Your task to perform on an android device: open the mobile data screen to see how much data has been used Image 0: 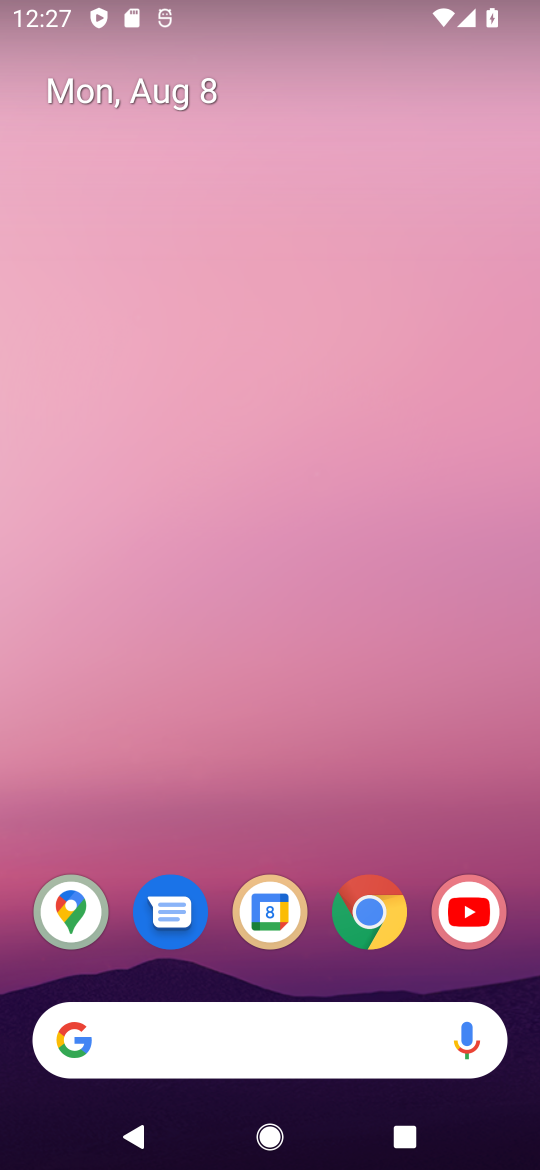
Step 0: drag from (268, 992) to (300, 103)
Your task to perform on an android device: open the mobile data screen to see how much data has been used Image 1: 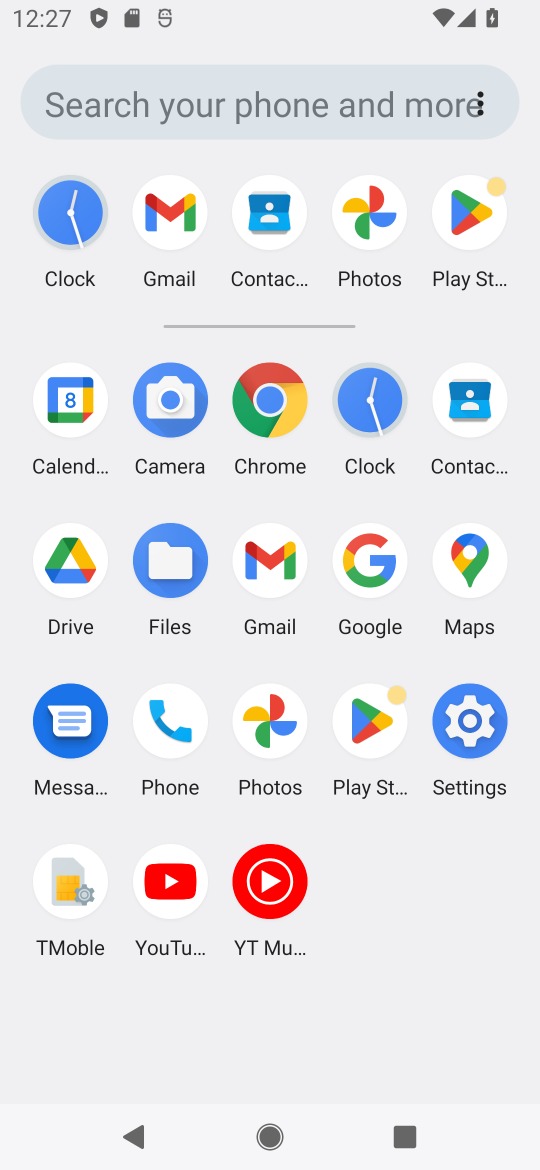
Step 1: click (470, 738)
Your task to perform on an android device: open the mobile data screen to see how much data has been used Image 2: 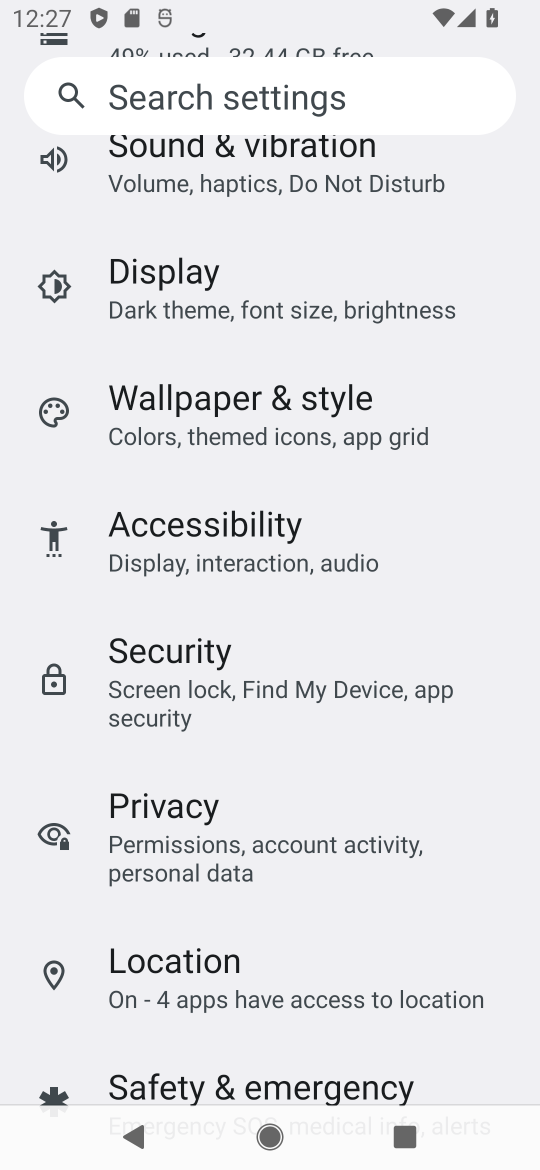
Step 2: drag from (276, 242) to (210, 1168)
Your task to perform on an android device: open the mobile data screen to see how much data has been used Image 3: 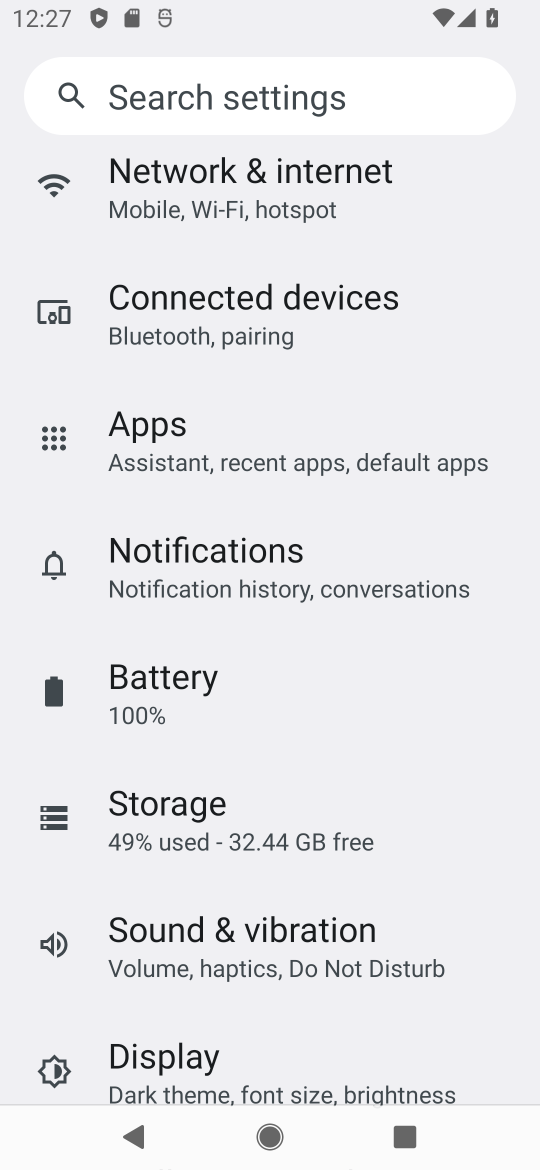
Step 3: click (244, 184)
Your task to perform on an android device: open the mobile data screen to see how much data has been used Image 4: 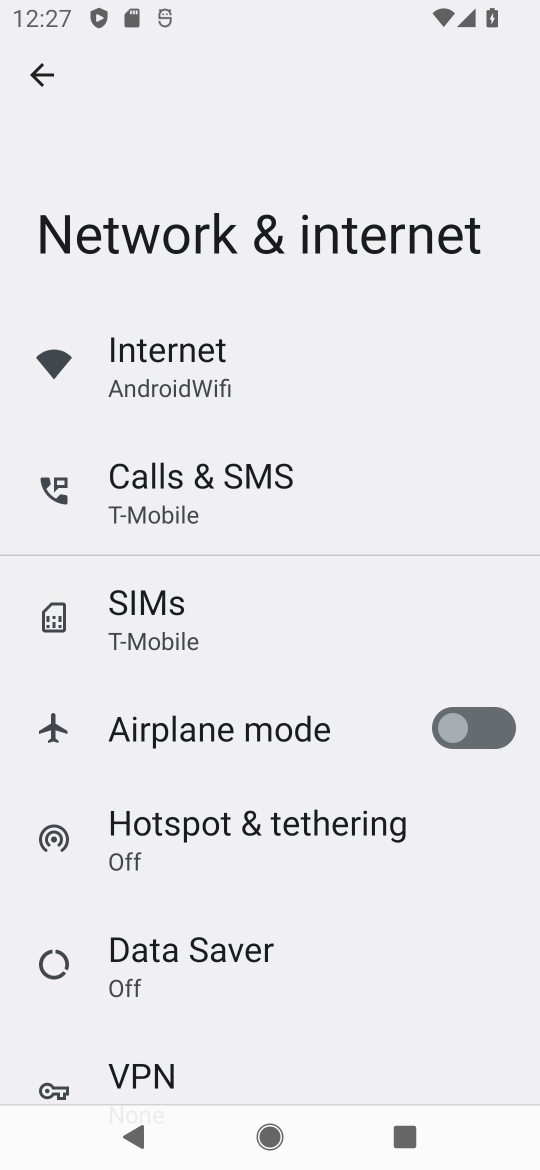
Step 4: click (207, 376)
Your task to perform on an android device: open the mobile data screen to see how much data has been used Image 5: 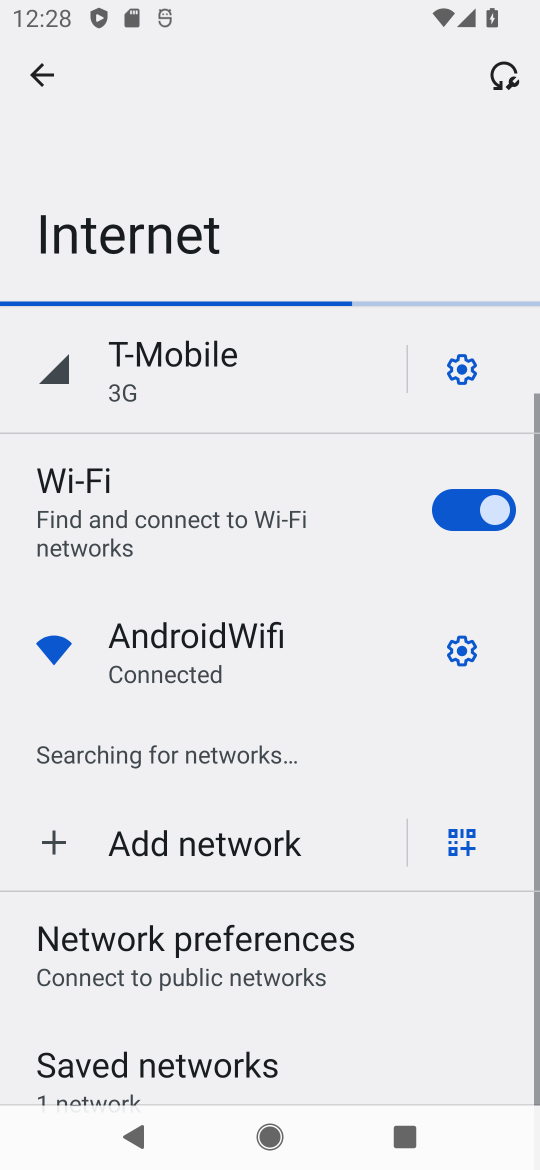
Step 5: drag from (181, 1056) to (360, 237)
Your task to perform on an android device: open the mobile data screen to see how much data has been used Image 6: 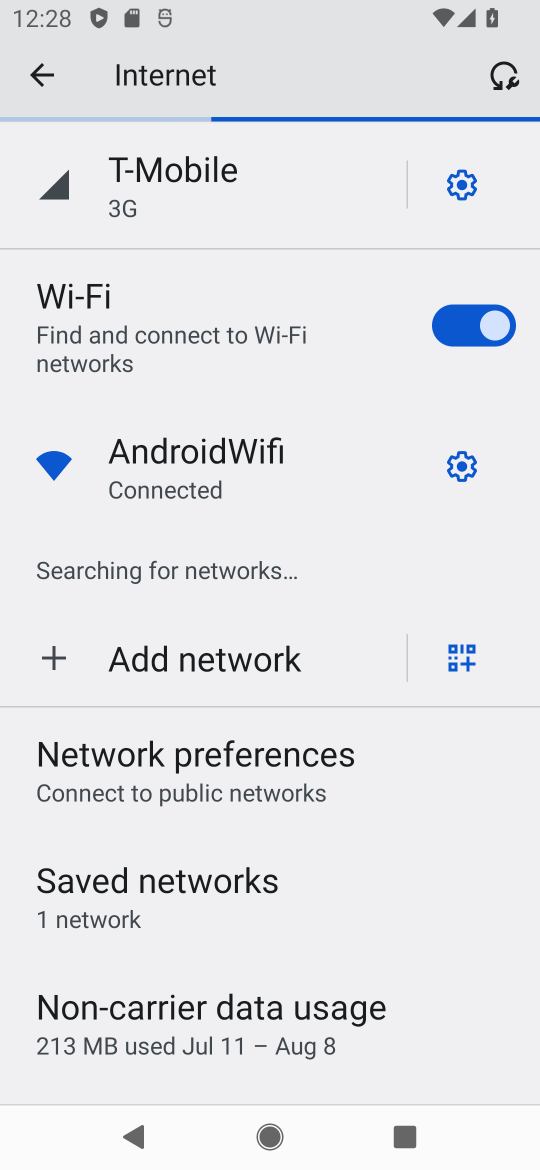
Step 6: click (323, 1002)
Your task to perform on an android device: open the mobile data screen to see how much data has been used Image 7: 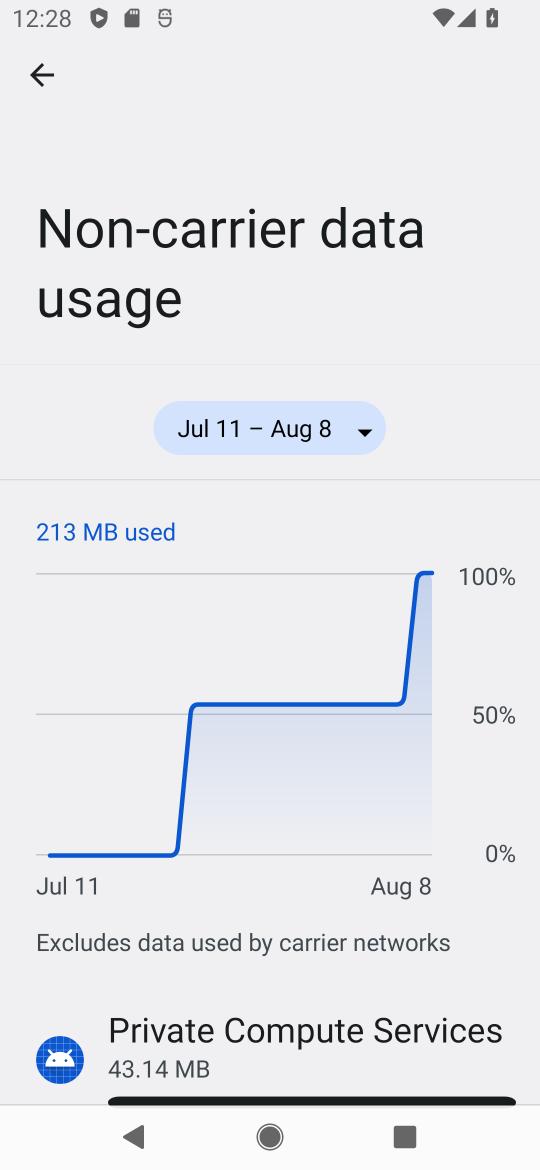
Step 7: task complete